Your task to perform on an android device: toggle pop-ups in chrome Image 0: 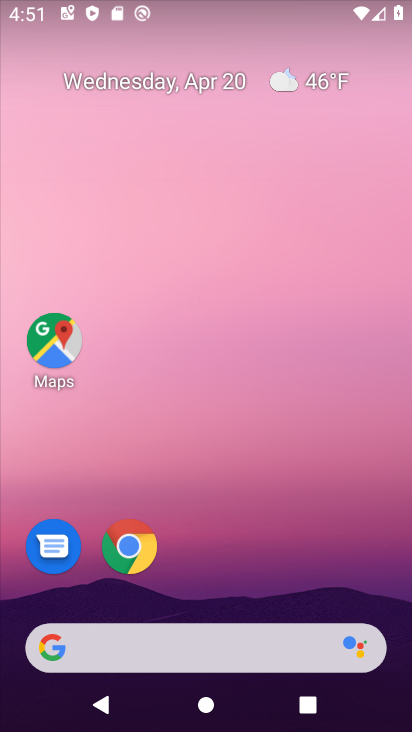
Step 0: click (360, 70)
Your task to perform on an android device: toggle pop-ups in chrome Image 1: 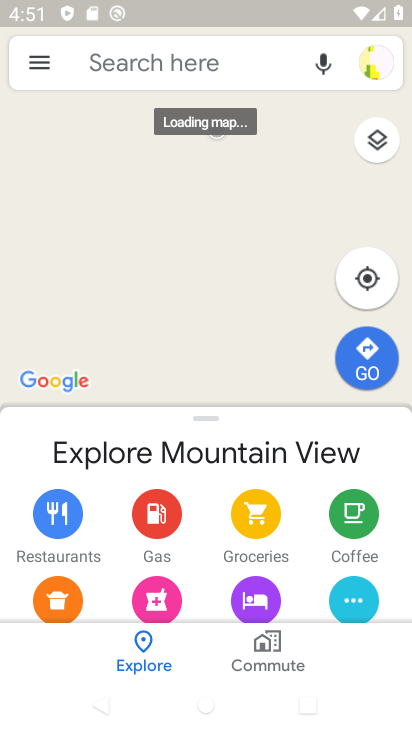
Step 1: press home button
Your task to perform on an android device: toggle pop-ups in chrome Image 2: 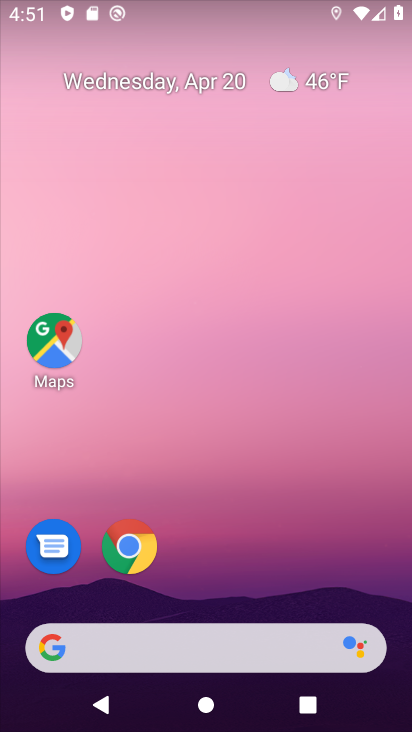
Step 2: drag from (311, 460) to (402, 31)
Your task to perform on an android device: toggle pop-ups in chrome Image 3: 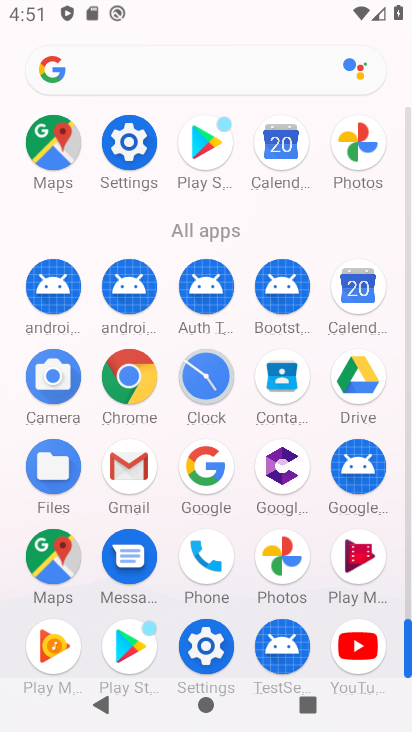
Step 3: click (145, 374)
Your task to perform on an android device: toggle pop-ups in chrome Image 4: 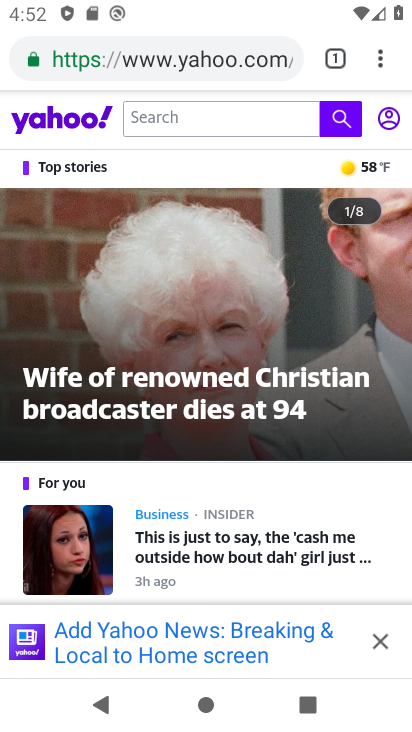
Step 4: drag from (377, 60) to (190, 580)
Your task to perform on an android device: toggle pop-ups in chrome Image 5: 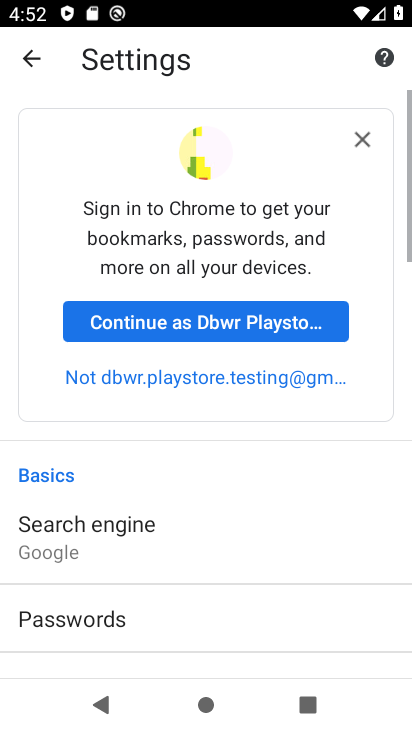
Step 5: drag from (190, 579) to (163, 211)
Your task to perform on an android device: toggle pop-ups in chrome Image 6: 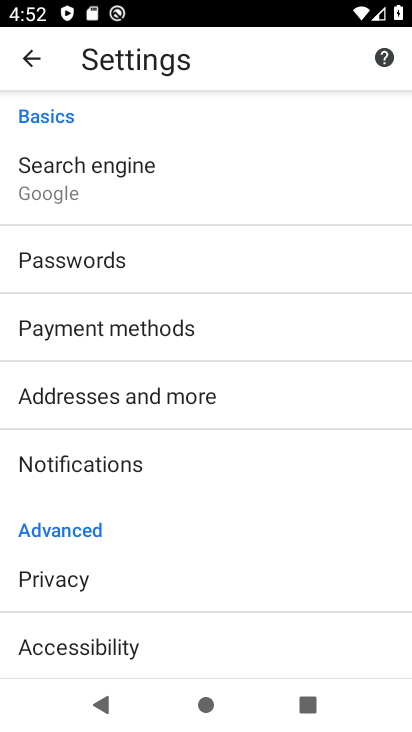
Step 6: drag from (159, 605) to (172, 218)
Your task to perform on an android device: toggle pop-ups in chrome Image 7: 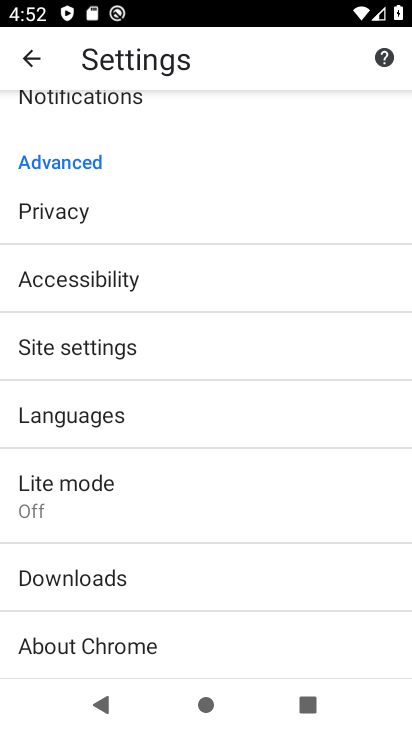
Step 7: drag from (156, 636) to (180, 300)
Your task to perform on an android device: toggle pop-ups in chrome Image 8: 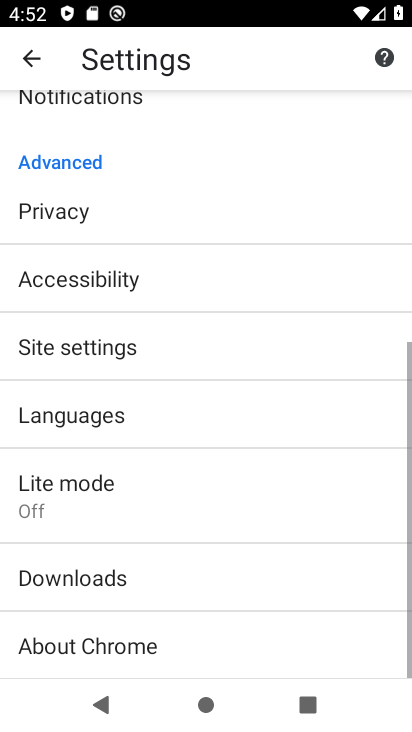
Step 8: click (196, 351)
Your task to perform on an android device: toggle pop-ups in chrome Image 9: 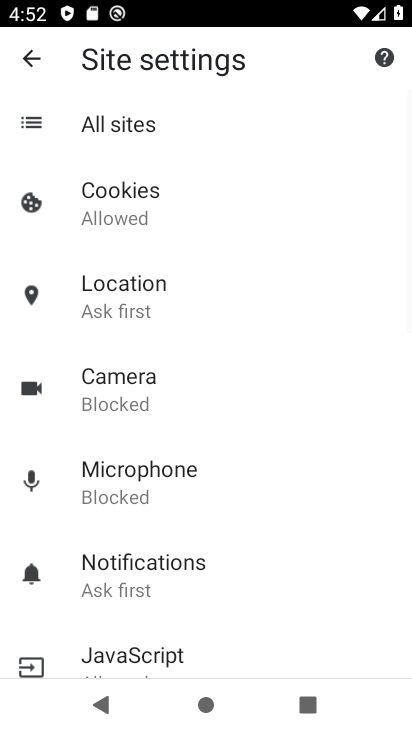
Step 9: drag from (195, 599) to (193, 231)
Your task to perform on an android device: toggle pop-ups in chrome Image 10: 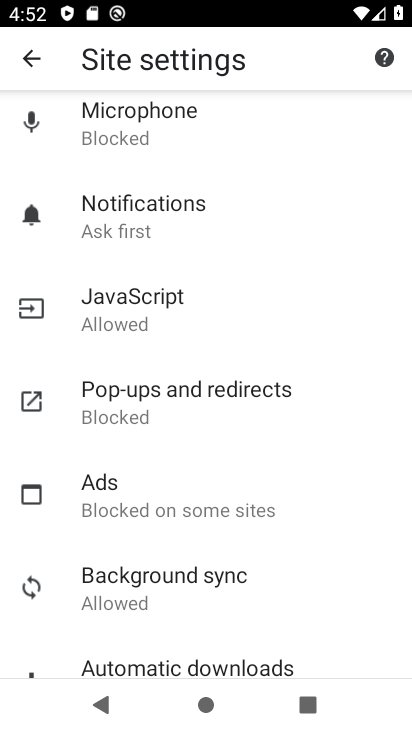
Step 10: click (170, 405)
Your task to perform on an android device: toggle pop-ups in chrome Image 11: 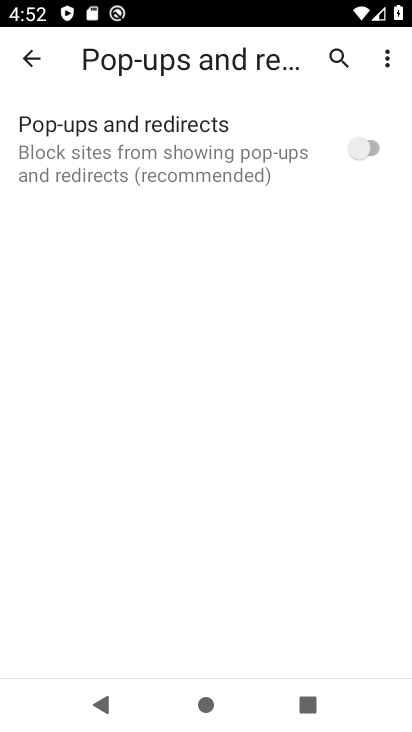
Step 11: click (356, 155)
Your task to perform on an android device: toggle pop-ups in chrome Image 12: 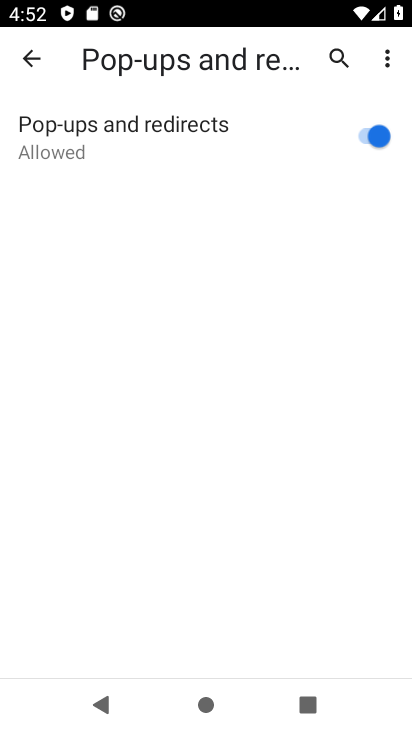
Step 12: task complete